Your task to perform on an android device: open app "Google News" (install if not already installed) Image 0: 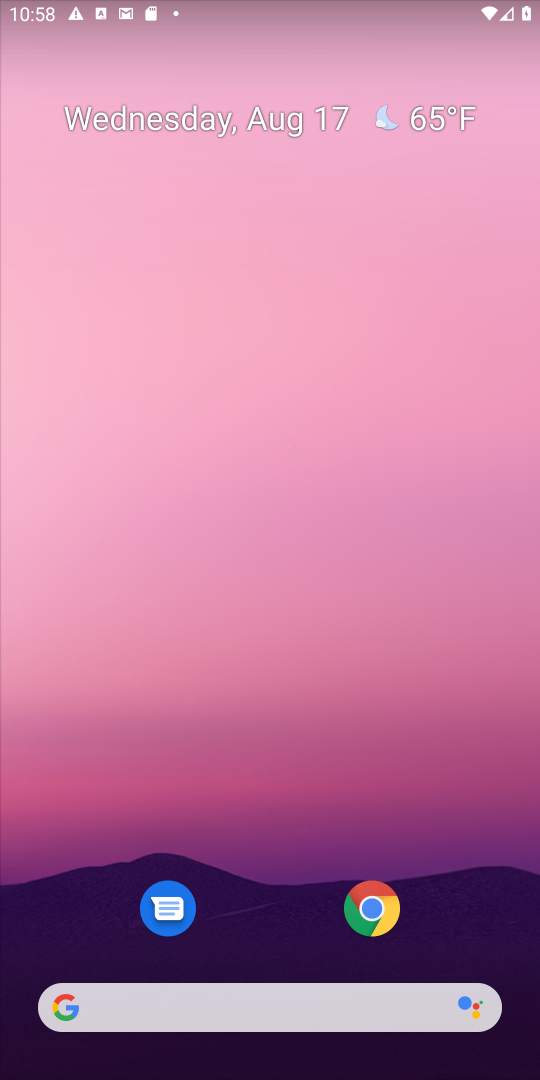
Step 0: drag from (263, 922) to (367, 82)
Your task to perform on an android device: open app "Google News" (install if not already installed) Image 1: 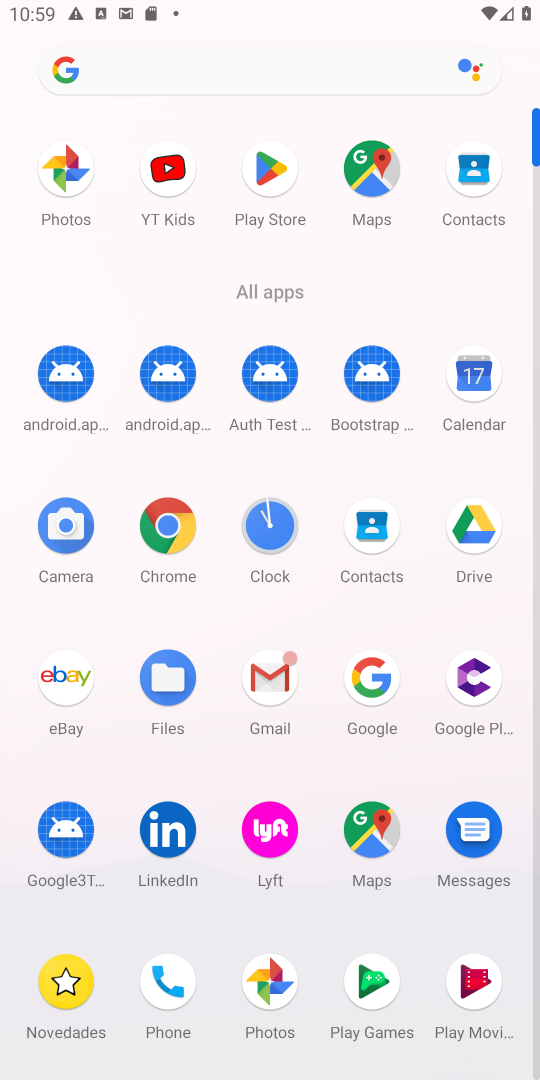
Step 1: click (381, 680)
Your task to perform on an android device: open app "Google News" (install if not already installed) Image 2: 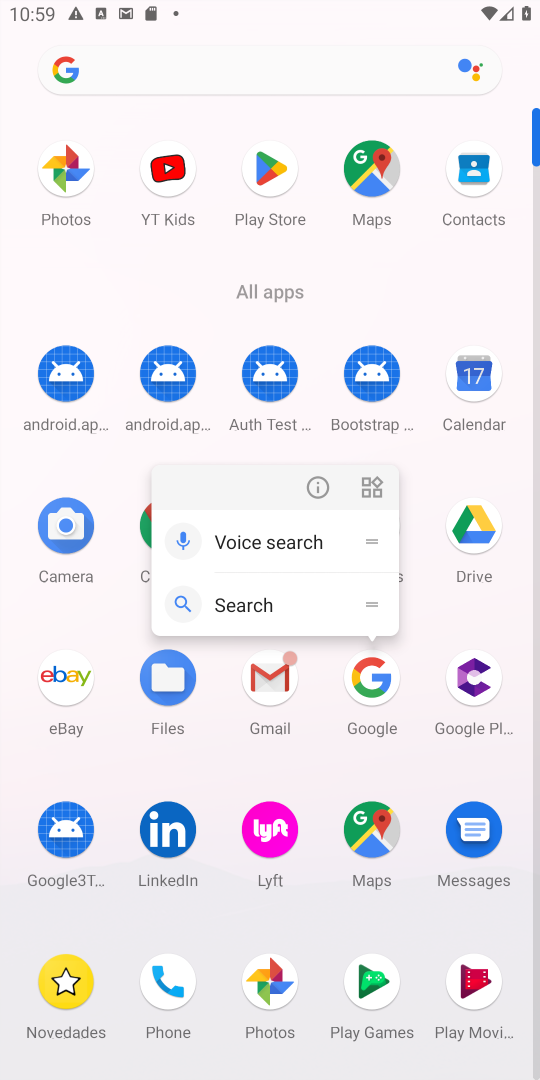
Step 2: click (370, 683)
Your task to perform on an android device: open app "Google News" (install if not already installed) Image 3: 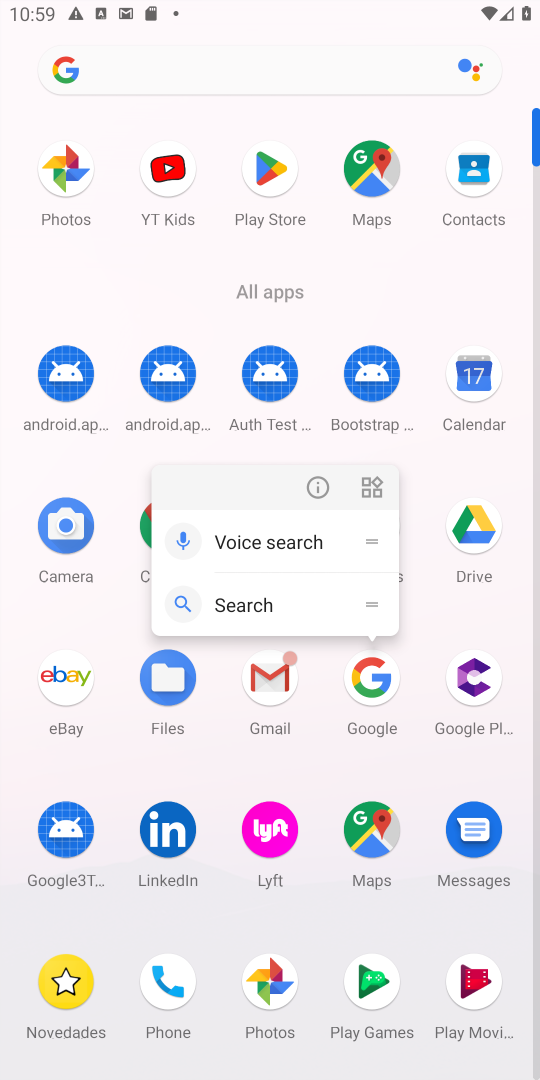
Step 3: click (269, 175)
Your task to perform on an android device: open app "Google News" (install if not already installed) Image 4: 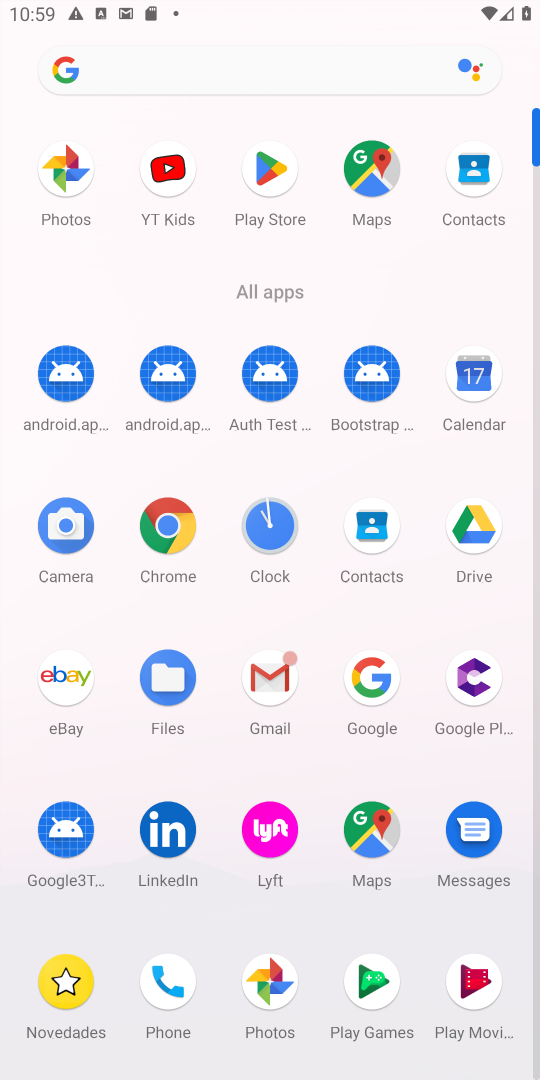
Step 4: click (269, 159)
Your task to perform on an android device: open app "Google News" (install if not already installed) Image 5: 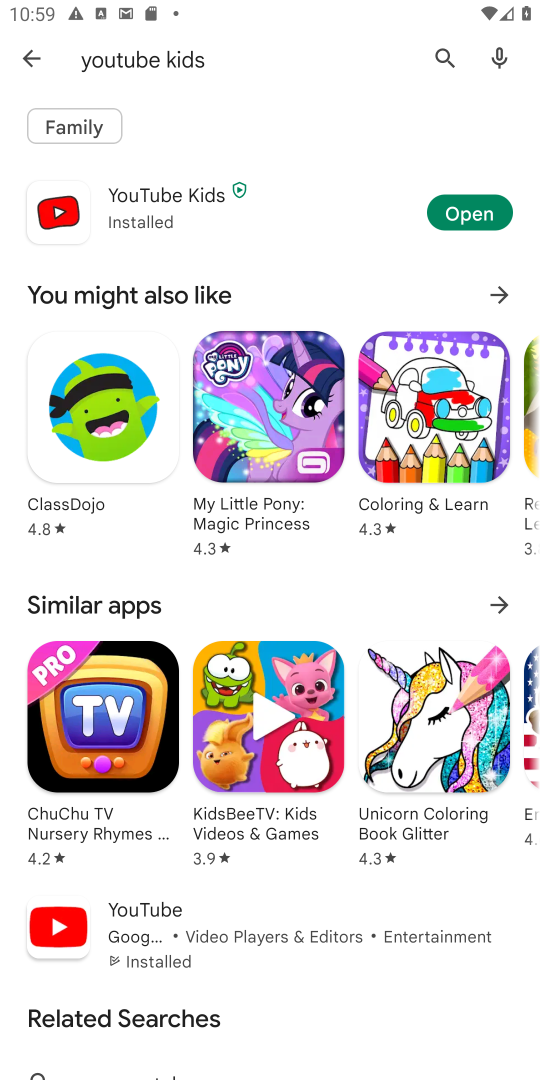
Step 5: click (432, 52)
Your task to perform on an android device: open app "Google News" (install if not already installed) Image 6: 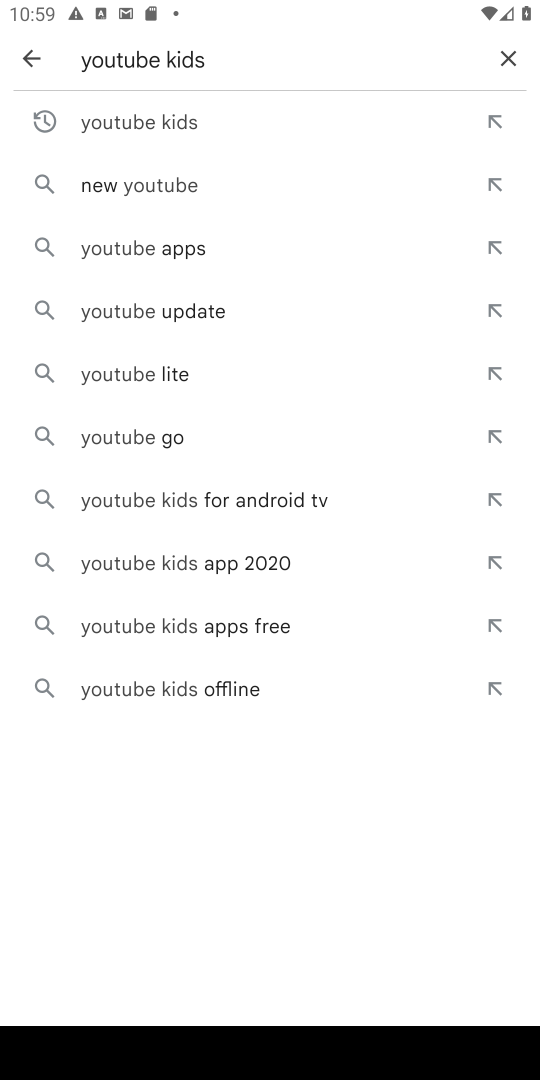
Step 6: click (505, 55)
Your task to perform on an android device: open app "Google News" (install if not already installed) Image 7: 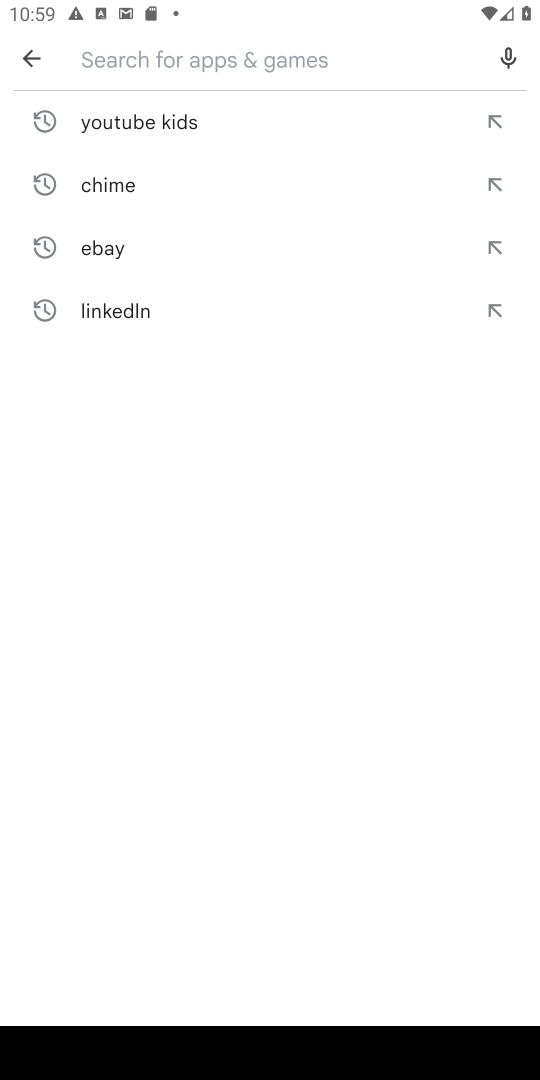
Step 7: click (209, 66)
Your task to perform on an android device: open app "Google News" (install if not already installed) Image 8: 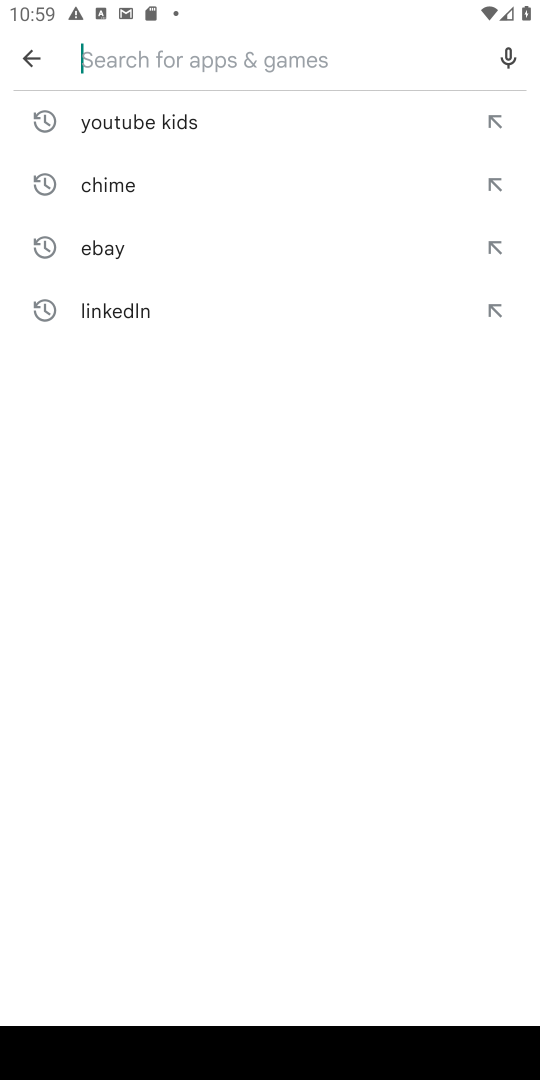
Step 8: type "google news"
Your task to perform on an android device: open app "Google News" (install if not already installed) Image 9: 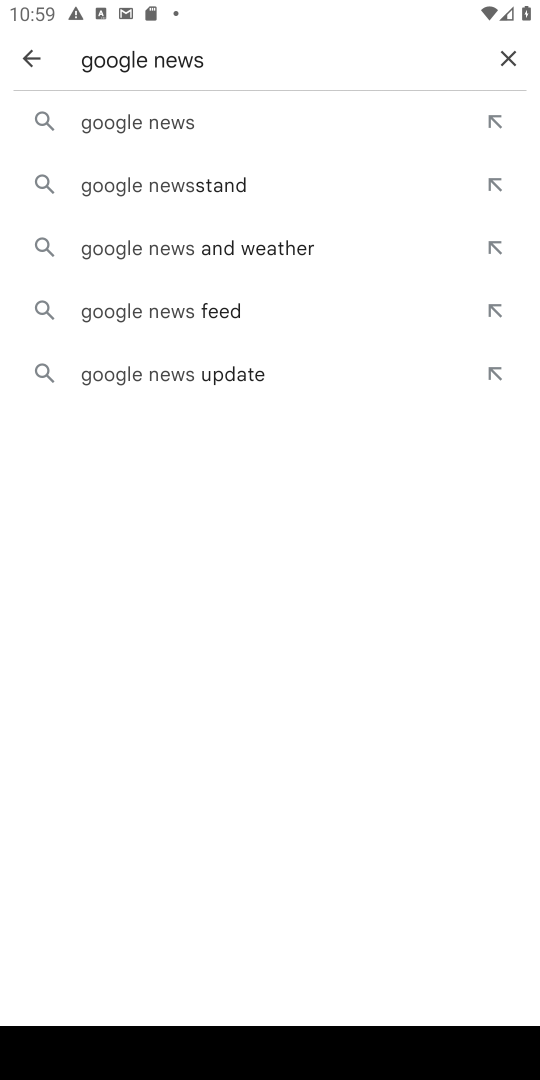
Step 9: click (121, 123)
Your task to perform on an android device: open app "Google News" (install if not already installed) Image 10: 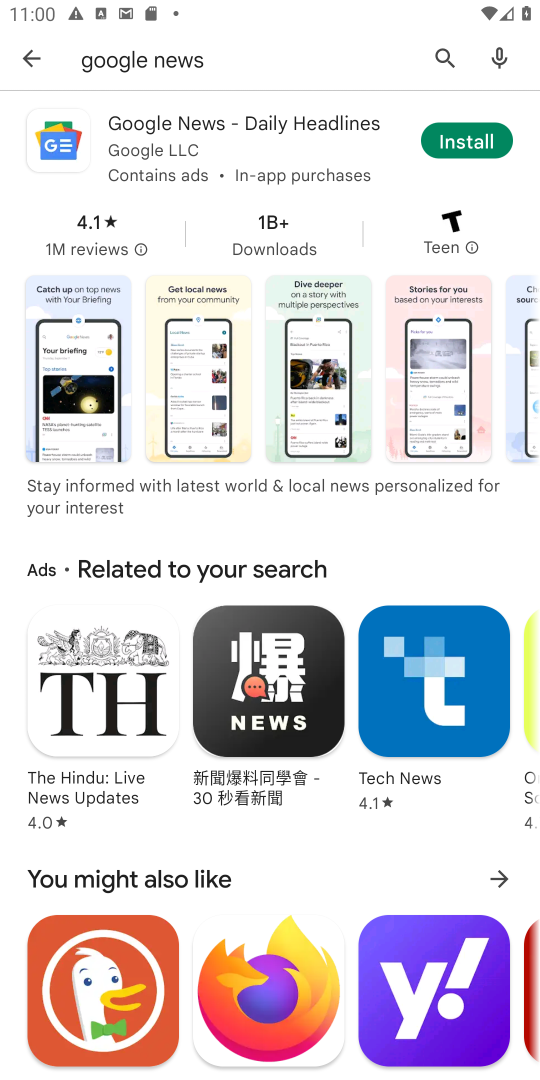
Step 10: click (461, 148)
Your task to perform on an android device: open app "Google News" (install if not already installed) Image 11: 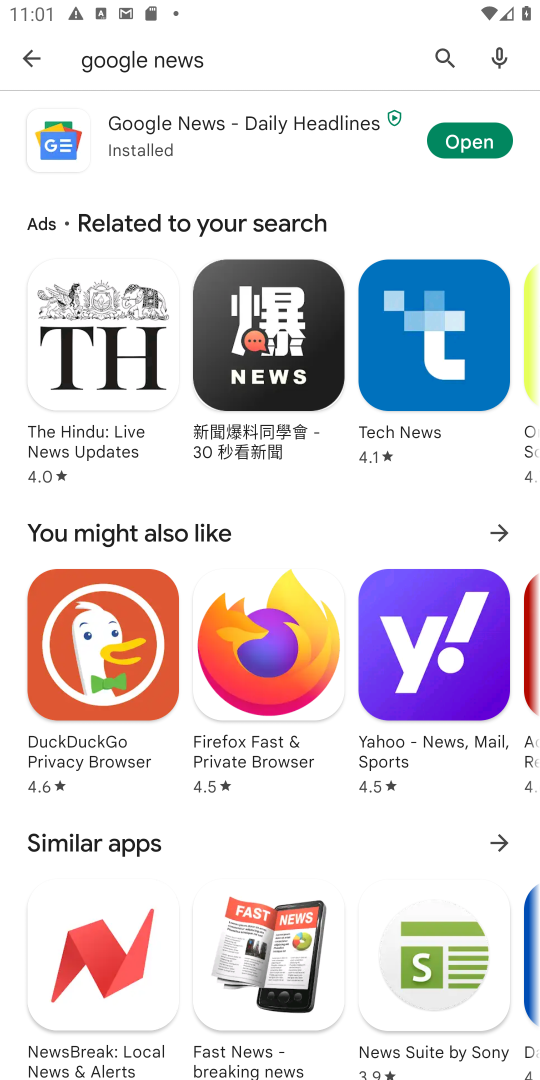
Step 11: click (476, 135)
Your task to perform on an android device: open app "Google News" (install if not already installed) Image 12: 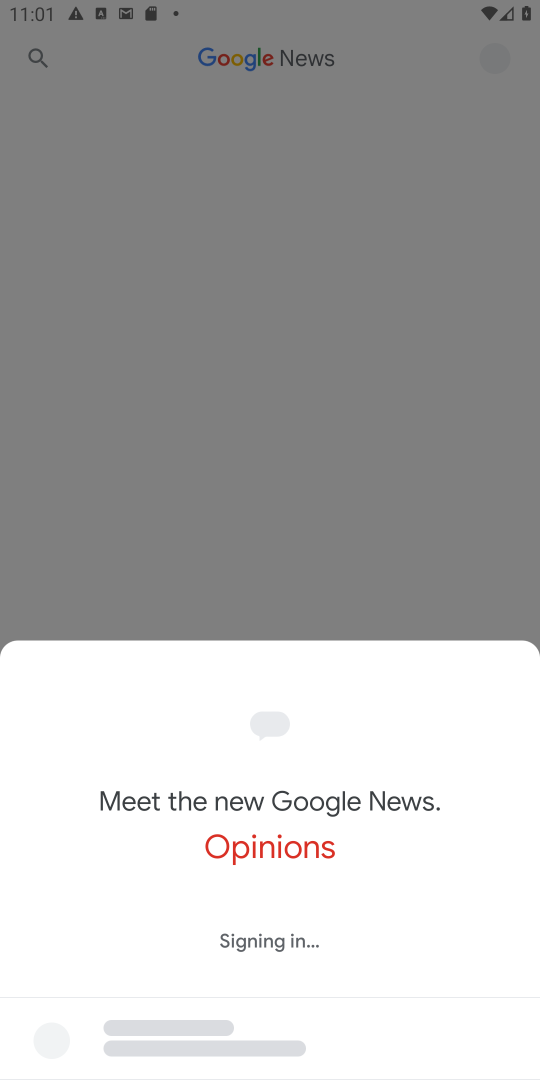
Step 12: task complete